Your task to perform on an android device: What's the weather going to be tomorrow? Image 0: 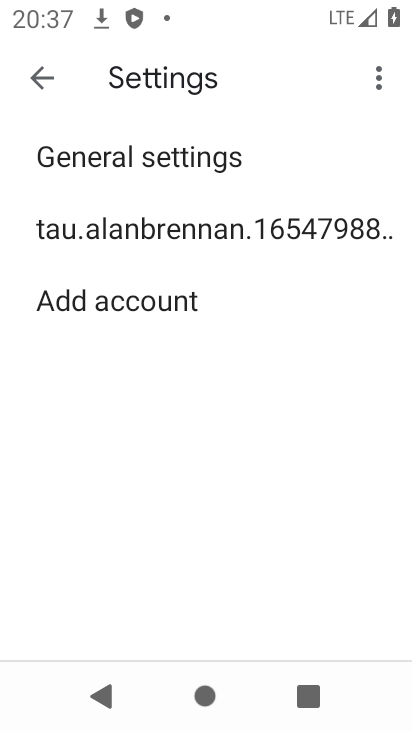
Step 0: press back button
Your task to perform on an android device: What's the weather going to be tomorrow? Image 1: 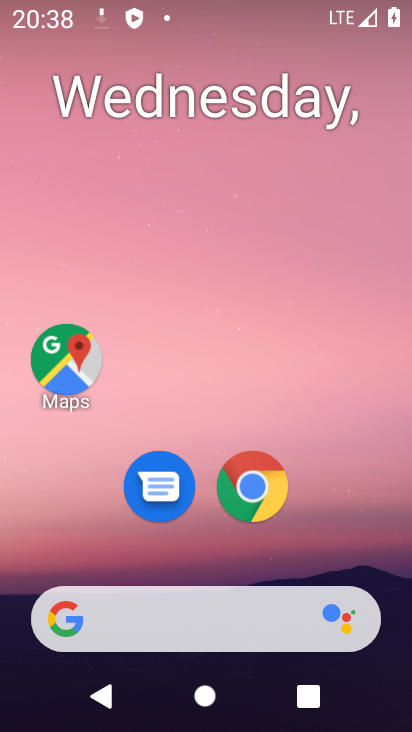
Step 1: drag from (136, 550) to (233, 2)
Your task to perform on an android device: What's the weather going to be tomorrow? Image 2: 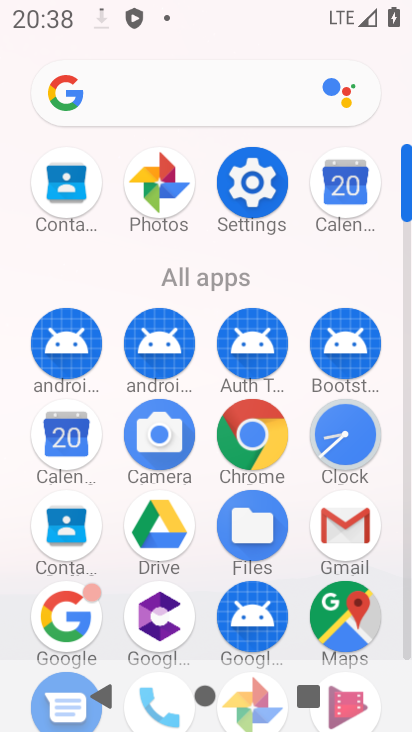
Step 2: click (140, 105)
Your task to perform on an android device: What's the weather going to be tomorrow? Image 3: 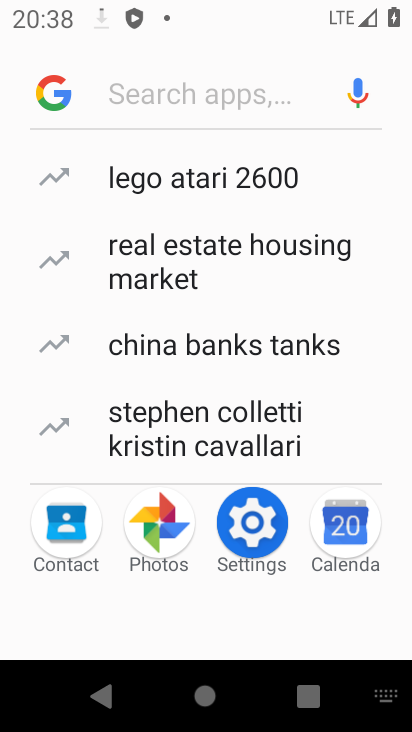
Step 3: type "weather"
Your task to perform on an android device: What's the weather going to be tomorrow? Image 4: 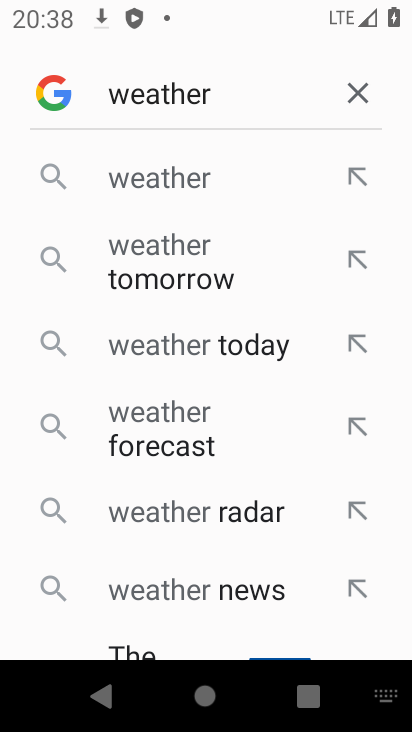
Step 4: click (144, 177)
Your task to perform on an android device: What's the weather going to be tomorrow? Image 5: 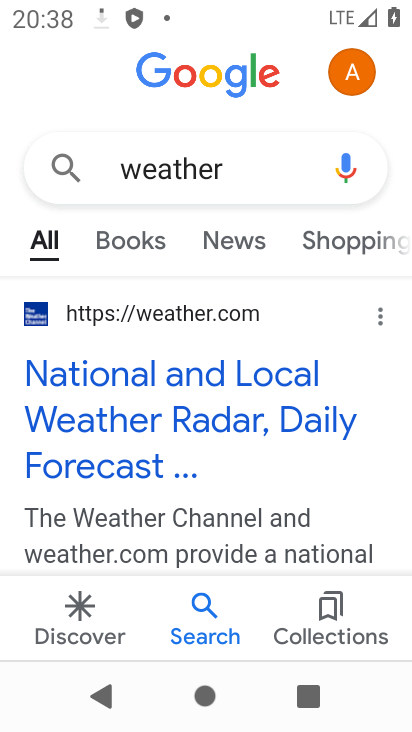
Step 5: drag from (181, 508) to (237, 139)
Your task to perform on an android device: What's the weather going to be tomorrow? Image 6: 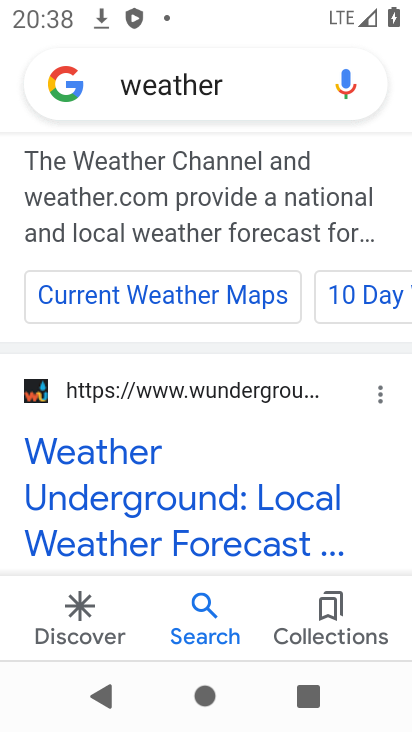
Step 6: drag from (172, 492) to (269, 63)
Your task to perform on an android device: What's the weather going to be tomorrow? Image 7: 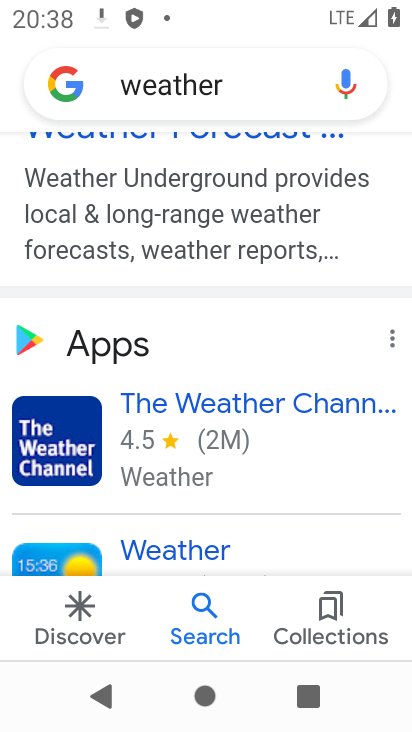
Step 7: drag from (188, 525) to (296, 19)
Your task to perform on an android device: What's the weather going to be tomorrow? Image 8: 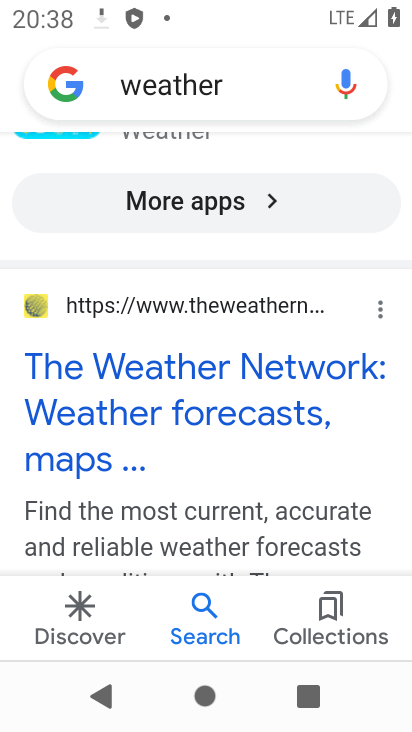
Step 8: drag from (297, 219) to (188, 720)
Your task to perform on an android device: What's the weather going to be tomorrow? Image 9: 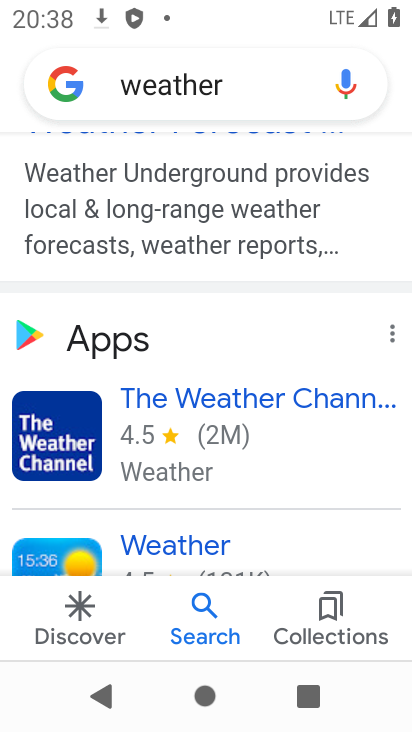
Step 9: drag from (243, 240) to (249, 691)
Your task to perform on an android device: What's the weather going to be tomorrow? Image 10: 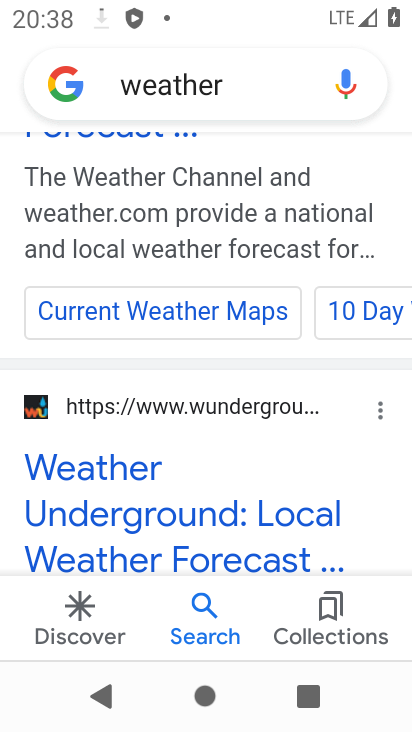
Step 10: drag from (222, 234) to (235, 715)
Your task to perform on an android device: What's the weather going to be tomorrow? Image 11: 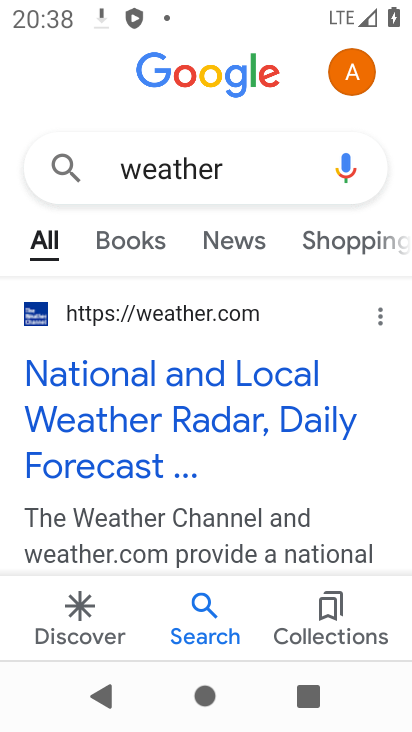
Step 11: click (202, 393)
Your task to perform on an android device: What's the weather going to be tomorrow? Image 12: 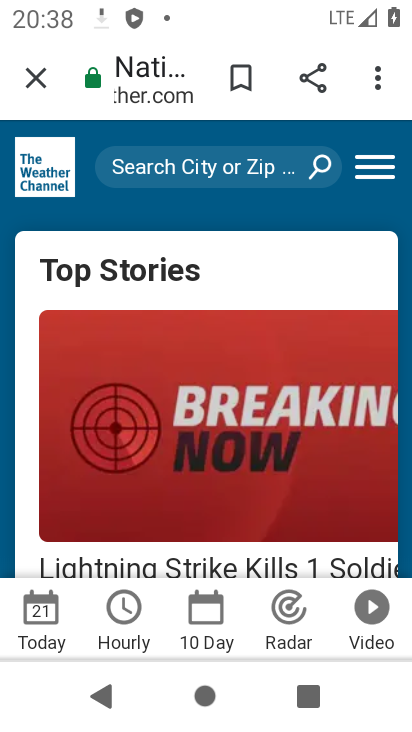
Step 12: task complete